Your task to perform on an android device: toggle data saver in the chrome app Image 0: 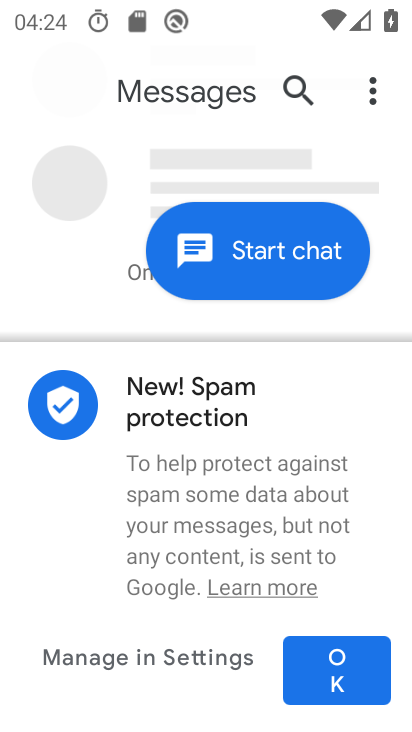
Step 0: press home button
Your task to perform on an android device: toggle data saver in the chrome app Image 1: 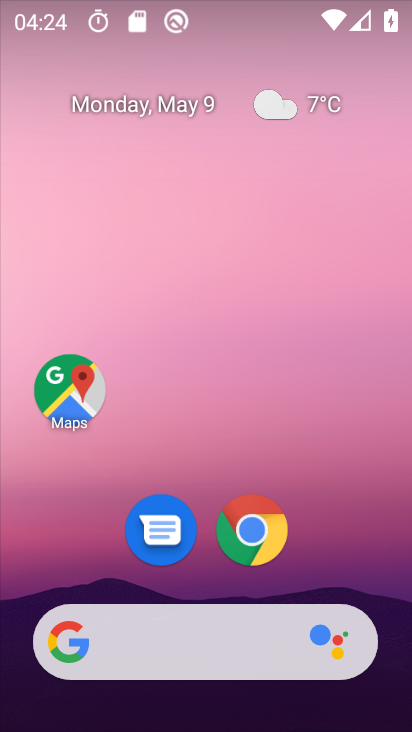
Step 1: click (248, 543)
Your task to perform on an android device: toggle data saver in the chrome app Image 2: 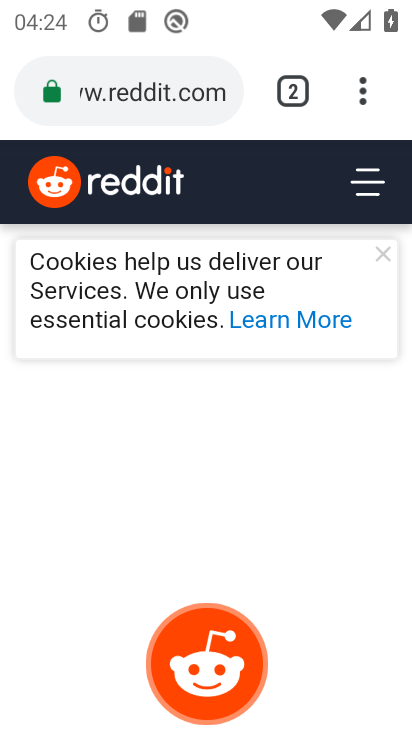
Step 2: drag from (362, 78) to (83, 554)
Your task to perform on an android device: toggle data saver in the chrome app Image 3: 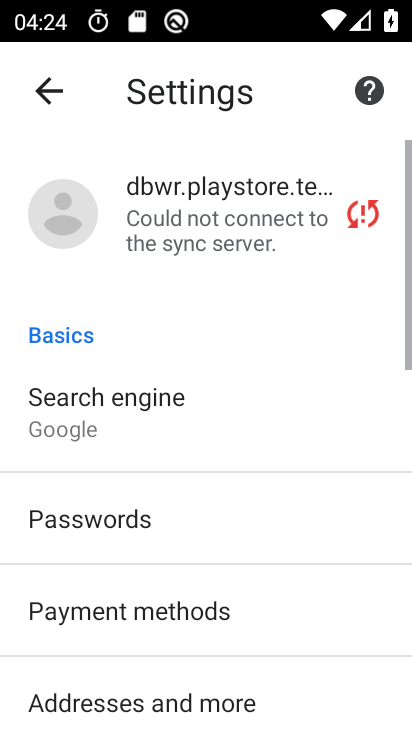
Step 3: drag from (170, 647) to (274, 102)
Your task to perform on an android device: toggle data saver in the chrome app Image 4: 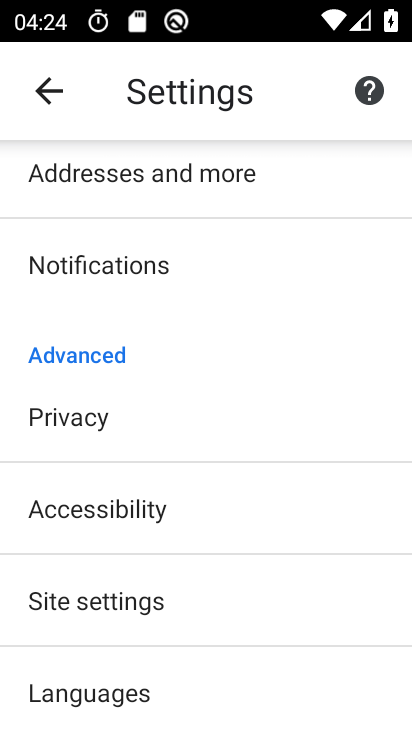
Step 4: drag from (98, 695) to (185, 304)
Your task to perform on an android device: toggle data saver in the chrome app Image 5: 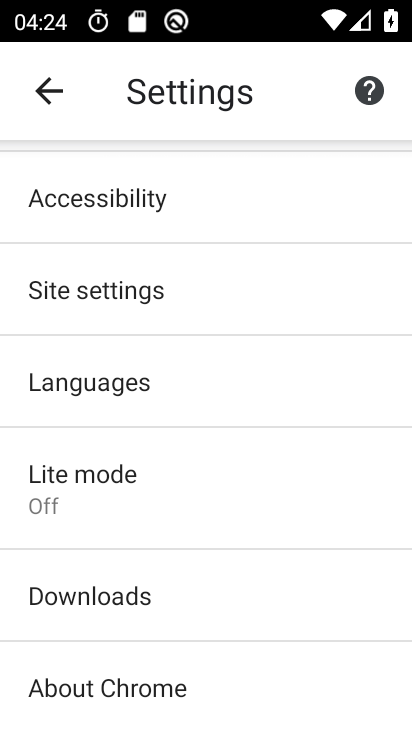
Step 5: click (77, 470)
Your task to perform on an android device: toggle data saver in the chrome app Image 6: 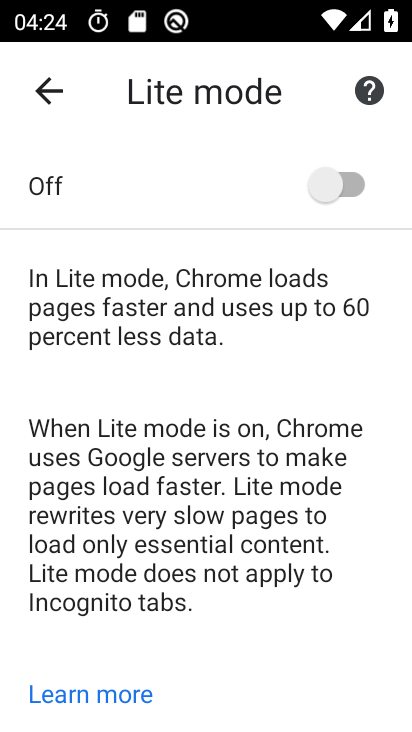
Step 6: click (330, 184)
Your task to perform on an android device: toggle data saver in the chrome app Image 7: 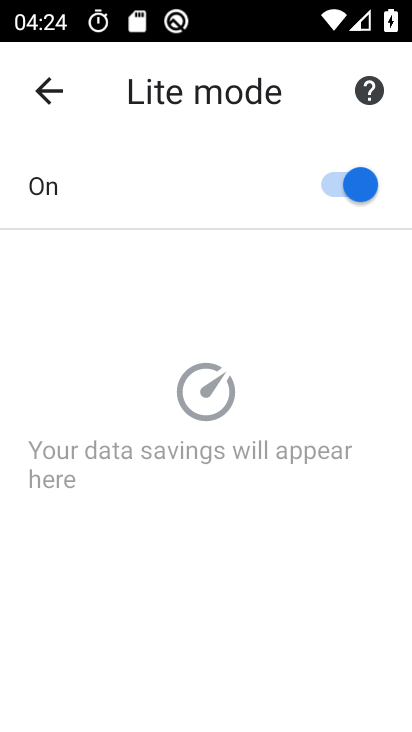
Step 7: task complete